Your task to perform on an android device: check the backup settings in the google photos Image 0: 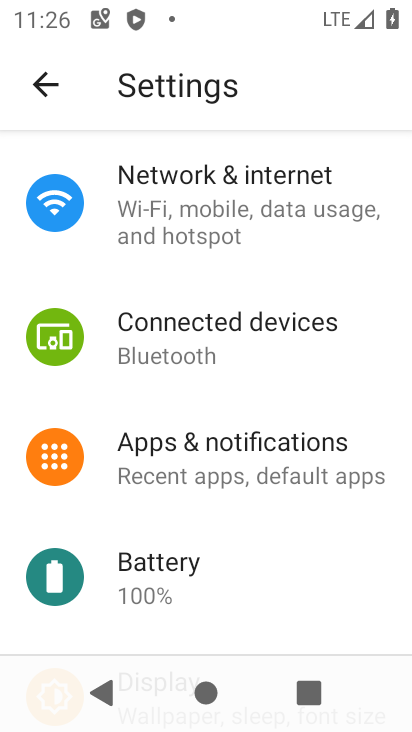
Step 0: press home button
Your task to perform on an android device: check the backup settings in the google photos Image 1: 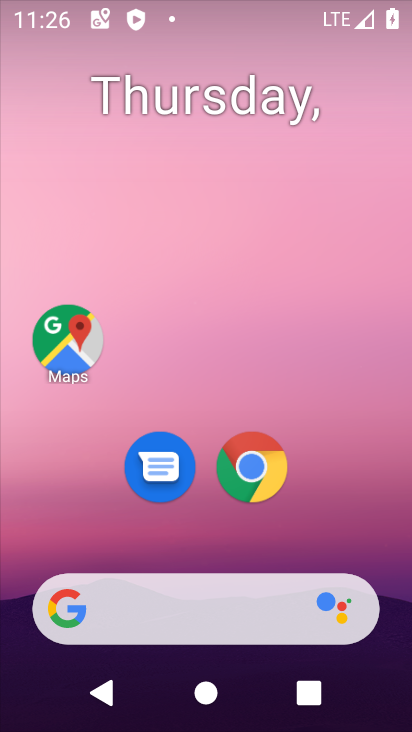
Step 1: drag from (204, 554) to (290, 75)
Your task to perform on an android device: check the backup settings in the google photos Image 2: 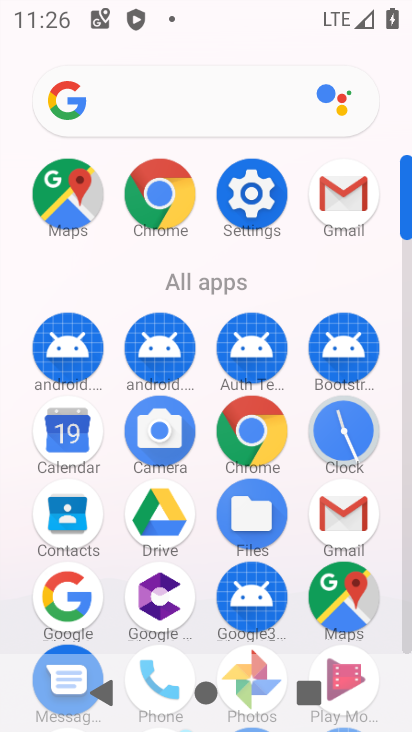
Step 2: drag from (181, 579) to (287, 124)
Your task to perform on an android device: check the backup settings in the google photos Image 3: 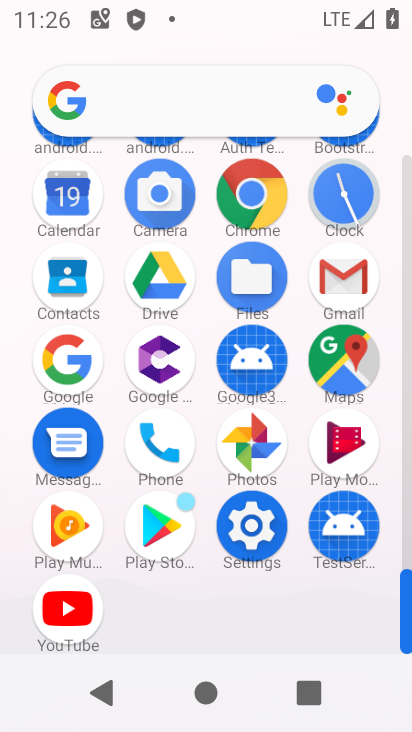
Step 3: click (245, 455)
Your task to perform on an android device: check the backup settings in the google photos Image 4: 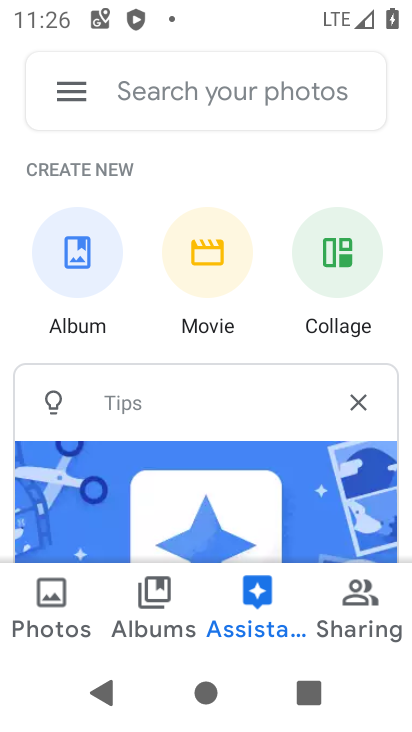
Step 4: click (64, 78)
Your task to perform on an android device: check the backup settings in the google photos Image 5: 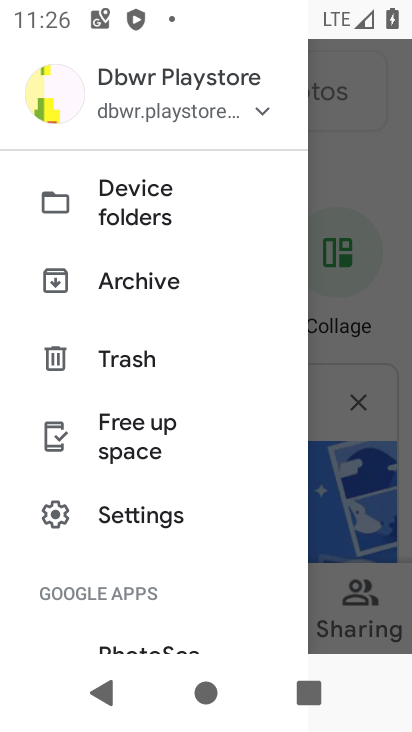
Step 5: click (119, 505)
Your task to perform on an android device: check the backup settings in the google photos Image 6: 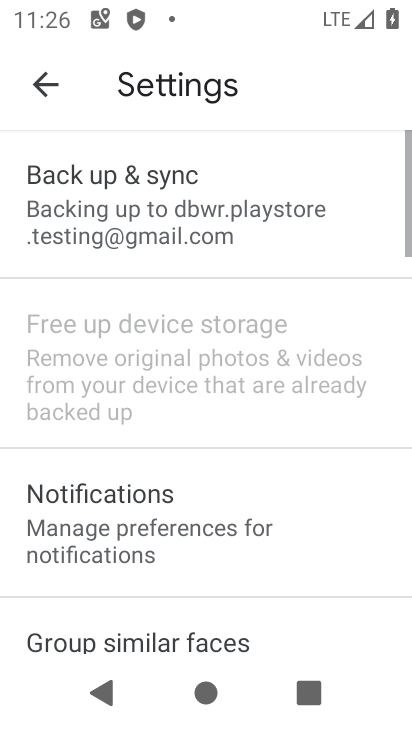
Step 6: click (96, 224)
Your task to perform on an android device: check the backup settings in the google photos Image 7: 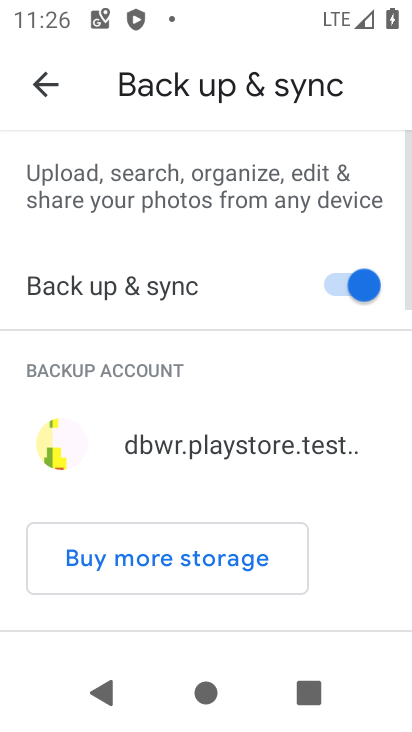
Step 7: task complete